Your task to perform on an android device: Go to Reddit.com Image 0: 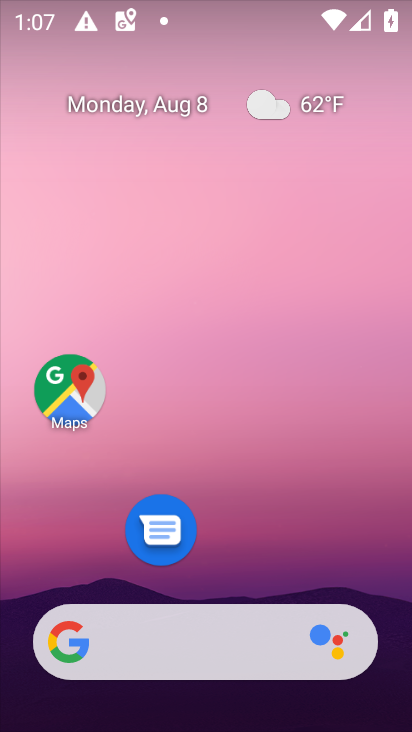
Step 0: drag from (216, 506) to (200, 99)
Your task to perform on an android device: Go to Reddit.com Image 1: 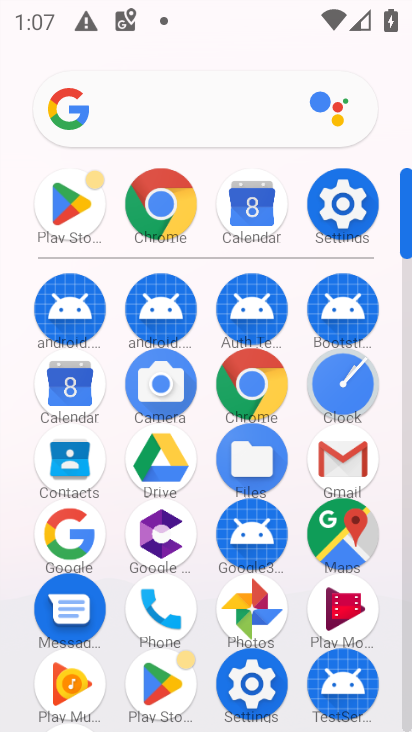
Step 1: click (160, 212)
Your task to perform on an android device: Go to Reddit.com Image 2: 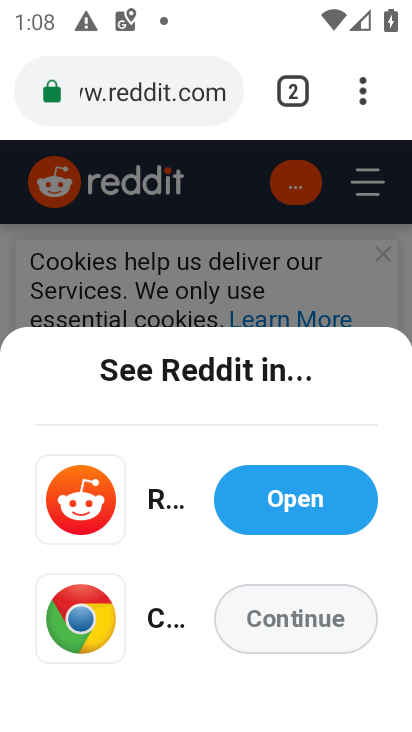
Step 2: task complete